Your task to perform on an android device: move an email to a new category in the gmail app Image 0: 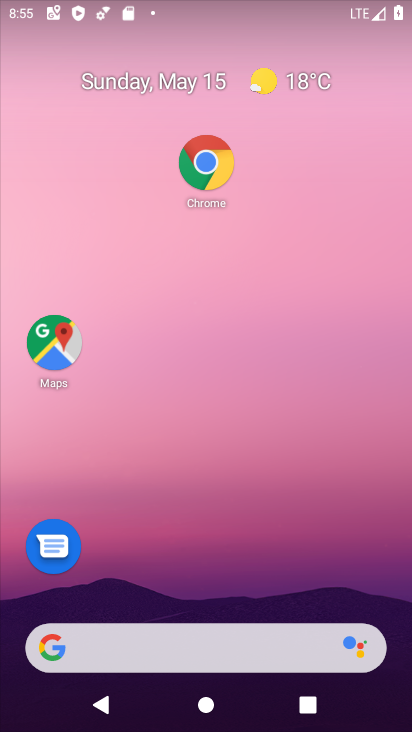
Step 0: drag from (277, 509) to (257, 178)
Your task to perform on an android device: move an email to a new category in the gmail app Image 1: 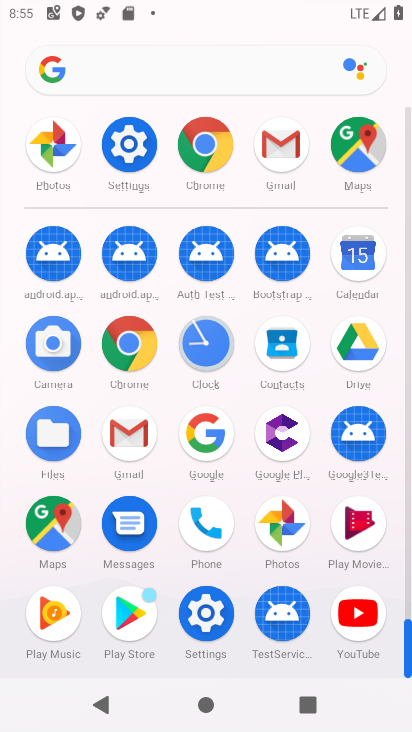
Step 1: click (288, 139)
Your task to perform on an android device: move an email to a new category in the gmail app Image 2: 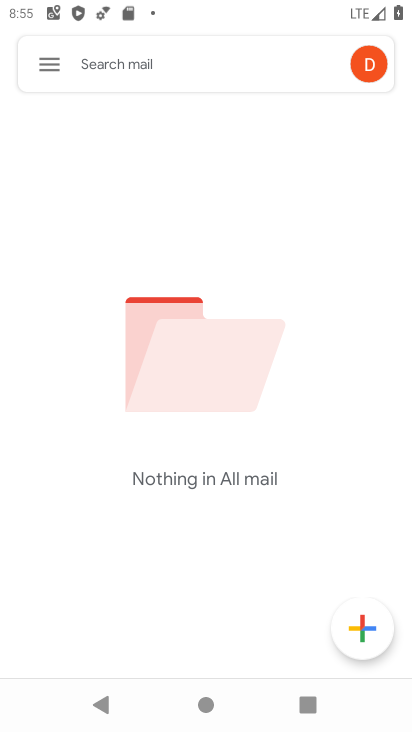
Step 2: click (50, 61)
Your task to perform on an android device: move an email to a new category in the gmail app Image 3: 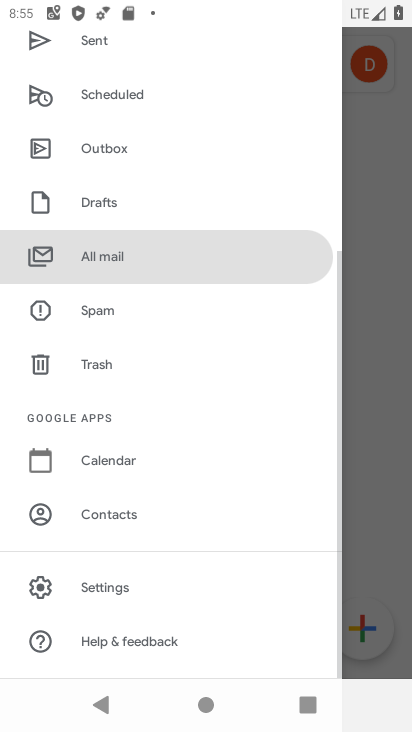
Step 3: click (114, 254)
Your task to perform on an android device: move an email to a new category in the gmail app Image 4: 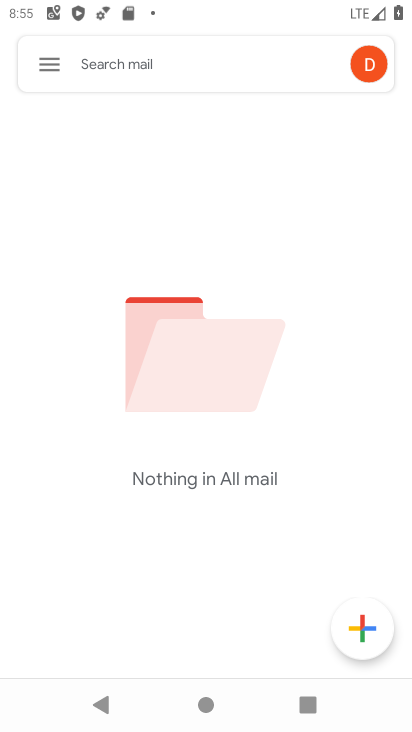
Step 4: click (39, 60)
Your task to perform on an android device: move an email to a new category in the gmail app Image 5: 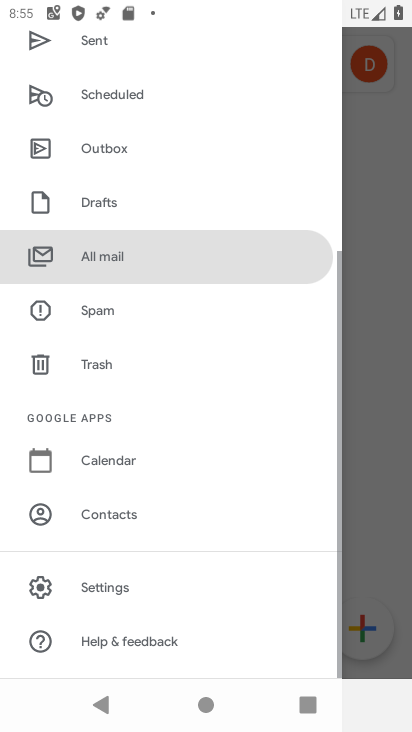
Step 5: click (127, 252)
Your task to perform on an android device: move an email to a new category in the gmail app Image 6: 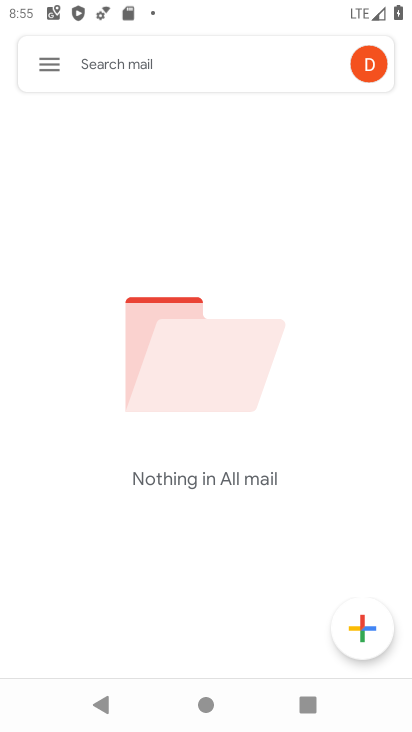
Step 6: task complete